Your task to perform on an android device: Show me popular videos on Youtube Image 0: 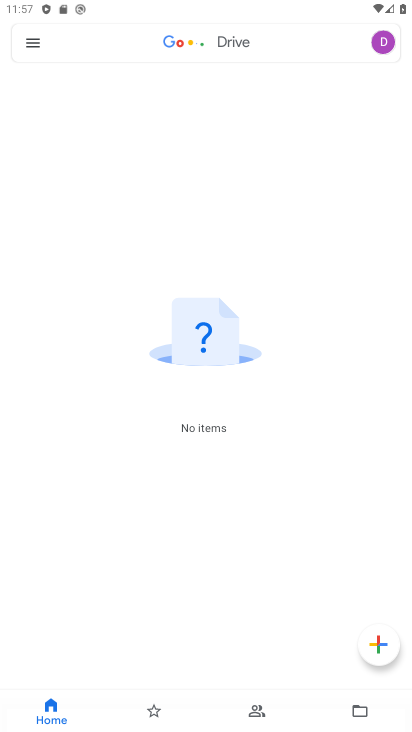
Step 0: press home button
Your task to perform on an android device: Show me popular videos on Youtube Image 1: 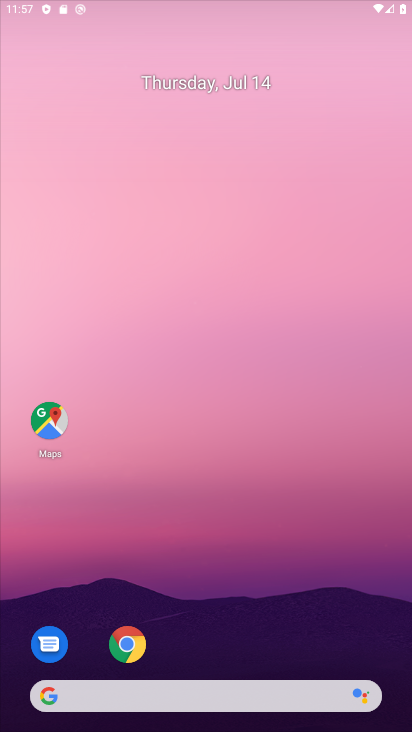
Step 1: drag from (350, 498) to (232, 35)
Your task to perform on an android device: Show me popular videos on Youtube Image 2: 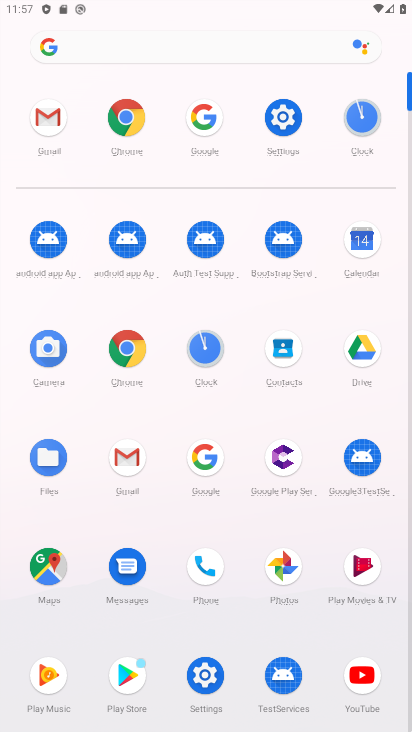
Step 2: click (353, 671)
Your task to perform on an android device: Show me popular videos on Youtube Image 3: 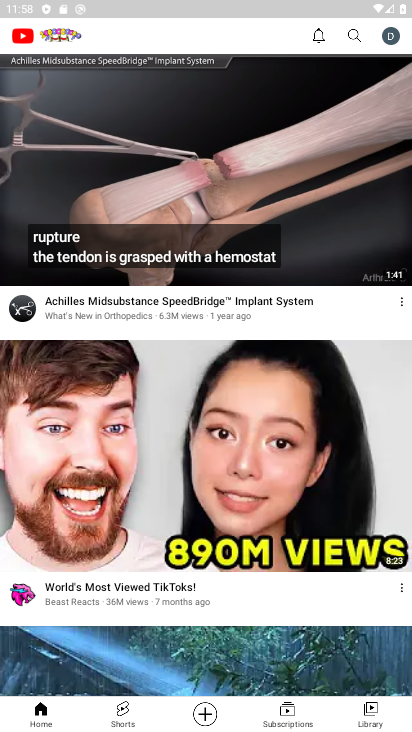
Step 3: task complete